Your task to perform on an android device: change the clock display to digital Image 0: 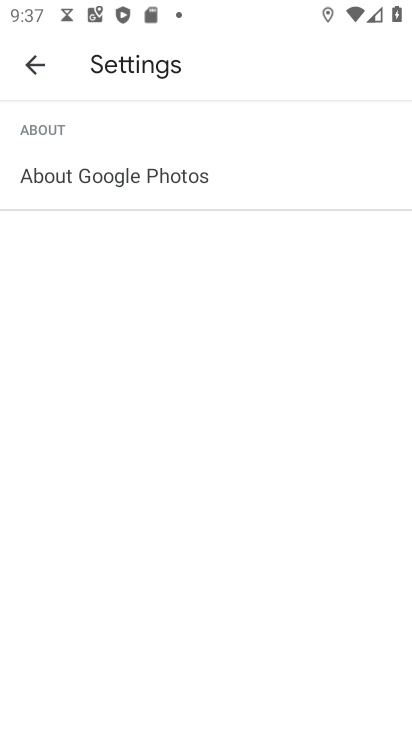
Step 0: press home button
Your task to perform on an android device: change the clock display to digital Image 1: 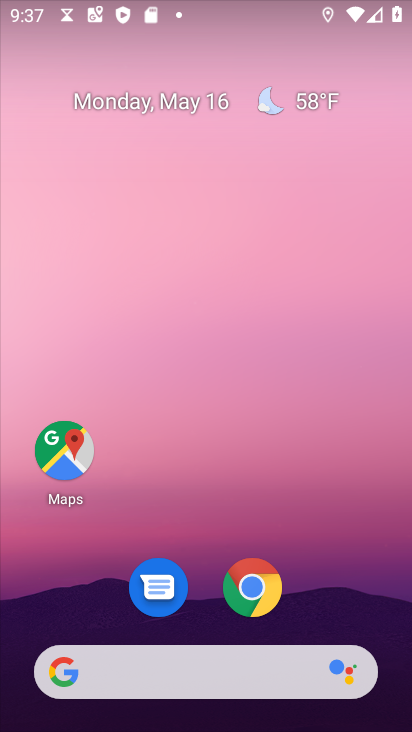
Step 1: drag from (357, 581) to (288, 222)
Your task to perform on an android device: change the clock display to digital Image 2: 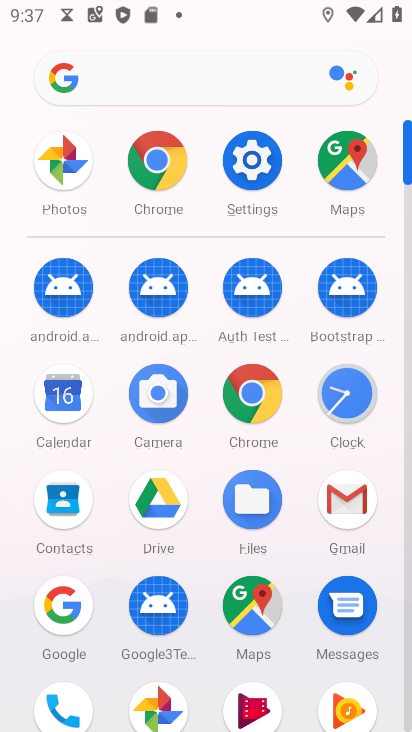
Step 2: click (250, 169)
Your task to perform on an android device: change the clock display to digital Image 3: 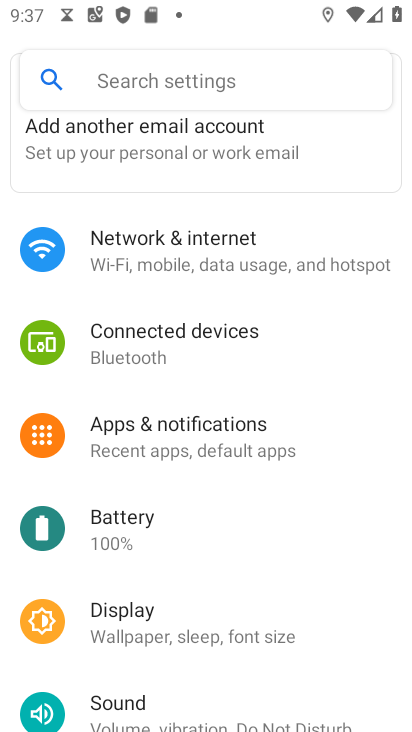
Step 3: press home button
Your task to perform on an android device: change the clock display to digital Image 4: 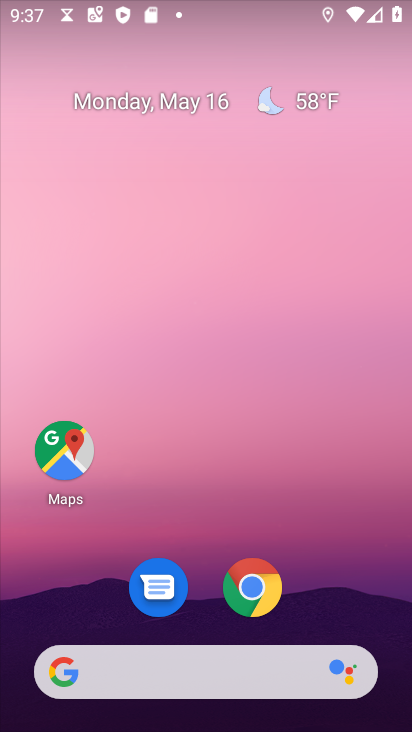
Step 4: drag from (371, 597) to (258, 117)
Your task to perform on an android device: change the clock display to digital Image 5: 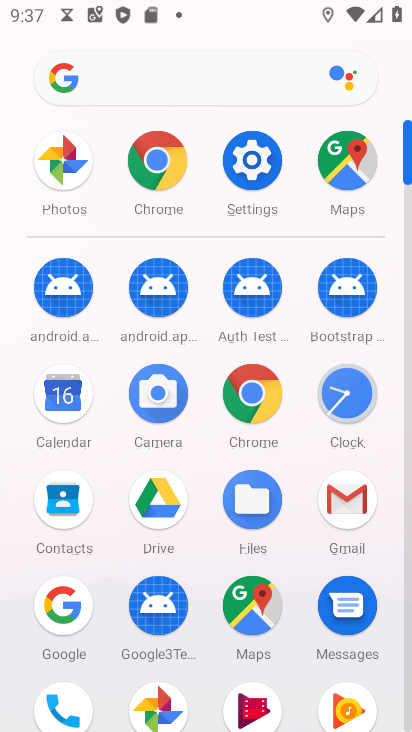
Step 5: click (345, 372)
Your task to perform on an android device: change the clock display to digital Image 6: 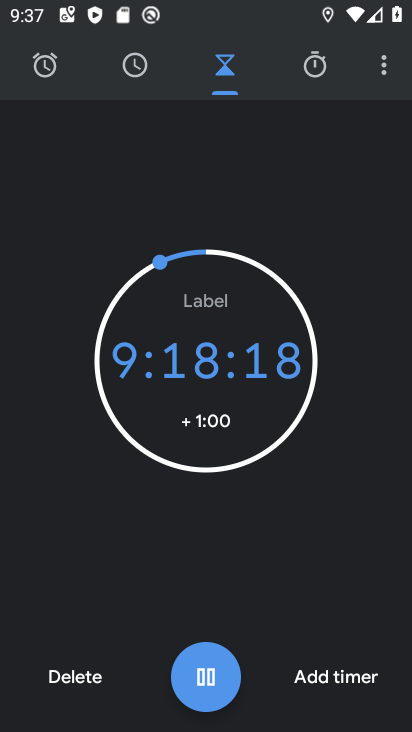
Step 6: click (382, 82)
Your task to perform on an android device: change the clock display to digital Image 7: 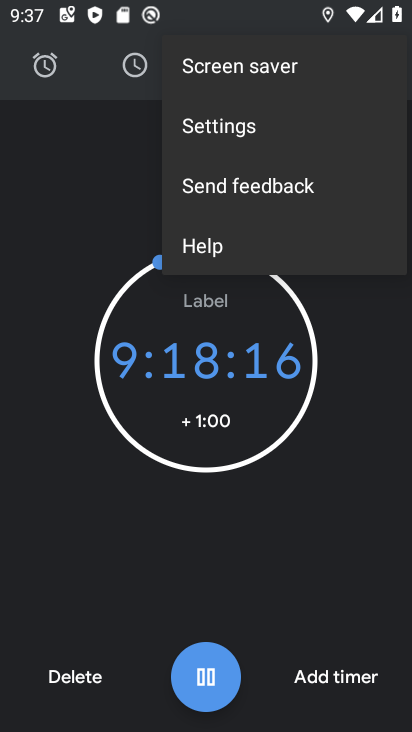
Step 7: click (353, 128)
Your task to perform on an android device: change the clock display to digital Image 8: 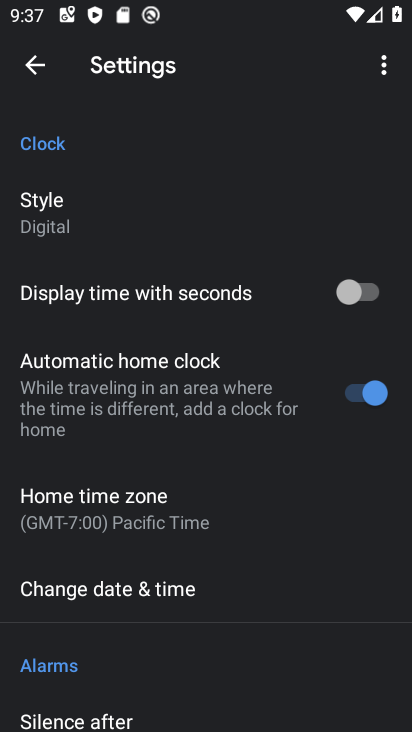
Step 8: click (164, 229)
Your task to perform on an android device: change the clock display to digital Image 9: 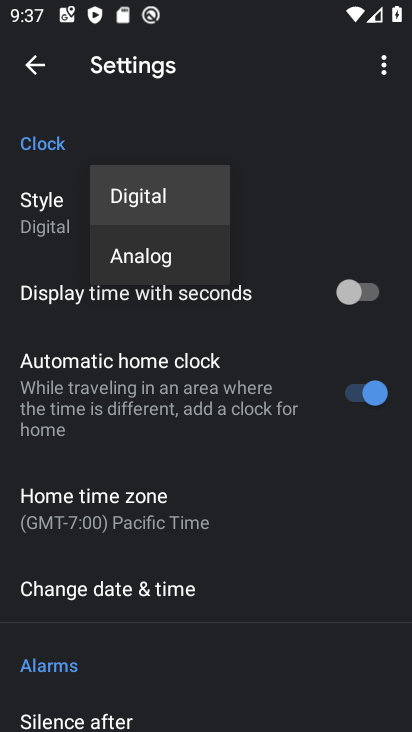
Step 9: click (166, 214)
Your task to perform on an android device: change the clock display to digital Image 10: 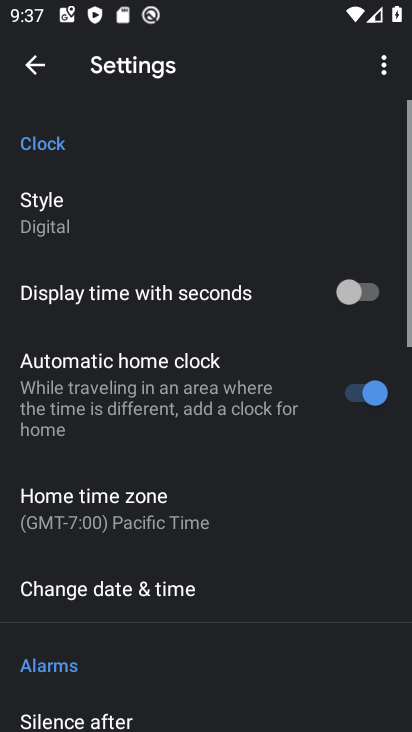
Step 10: task complete